Your task to perform on an android device: toggle translation in the chrome app Image 0: 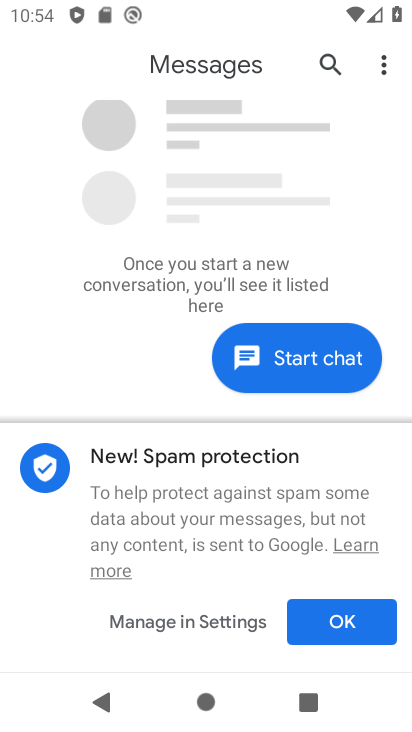
Step 0: press home button
Your task to perform on an android device: toggle translation in the chrome app Image 1: 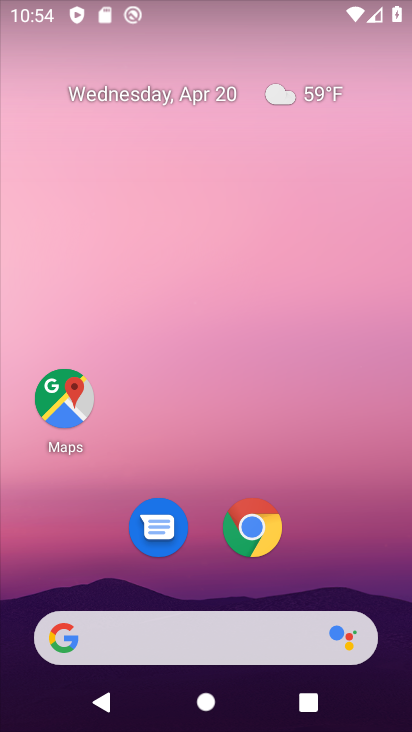
Step 1: drag from (374, 571) to (328, 174)
Your task to perform on an android device: toggle translation in the chrome app Image 2: 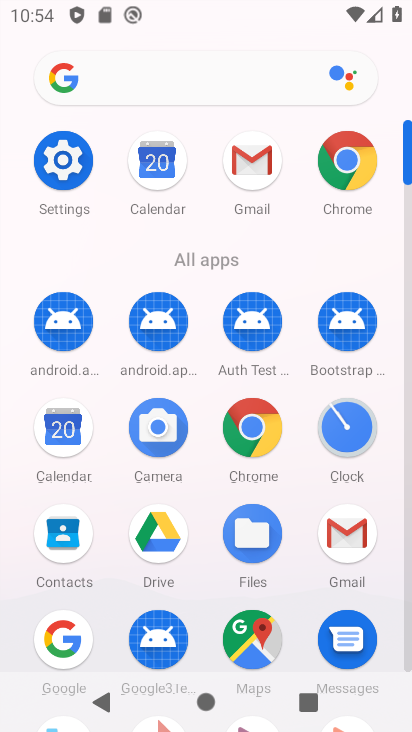
Step 2: click (256, 432)
Your task to perform on an android device: toggle translation in the chrome app Image 3: 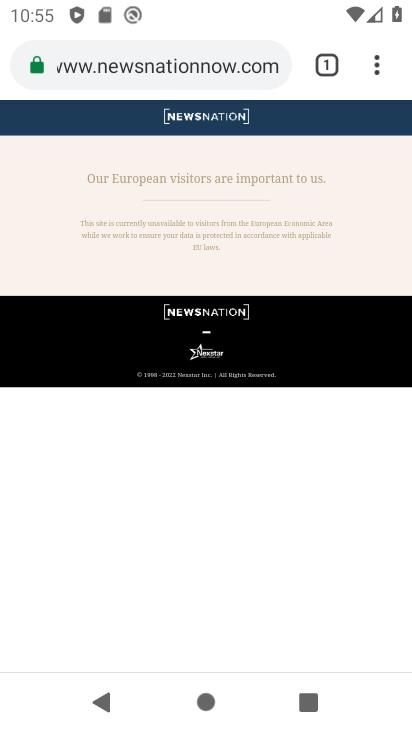
Step 3: drag from (377, 69) to (224, 561)
Your task to perform on an android device: toggle translation in the chrome app Image 4: 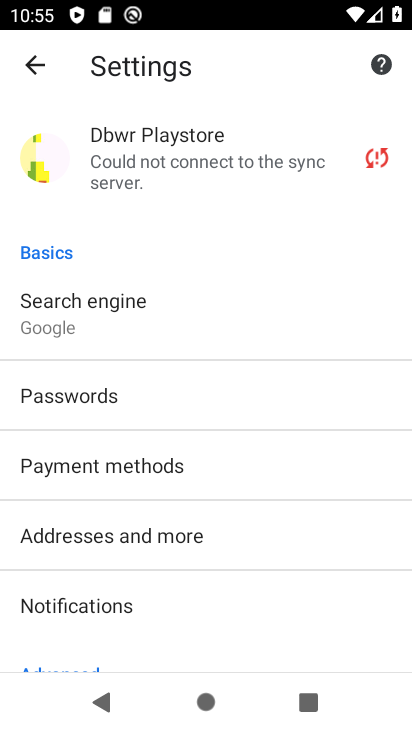
Step 4: drag from (259, 604) to (251, 321)
Your task to perform on an android device: toggle translation in the chrome app Image 5: 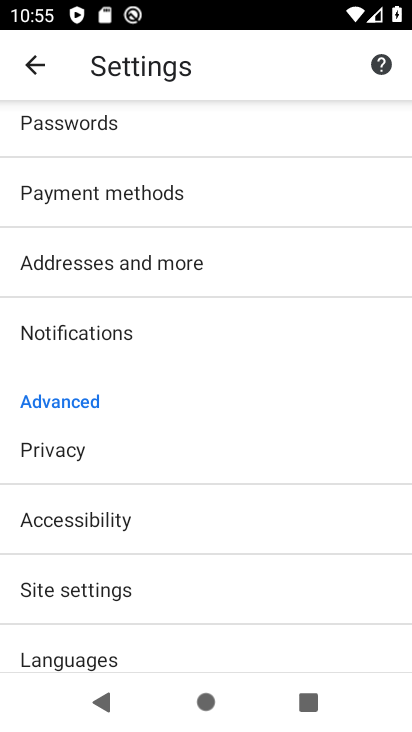
Step 5: drag from (242, 566) to (257, 317)
Your task to perform on an android device: toggle translation in the chrome app Image 6: 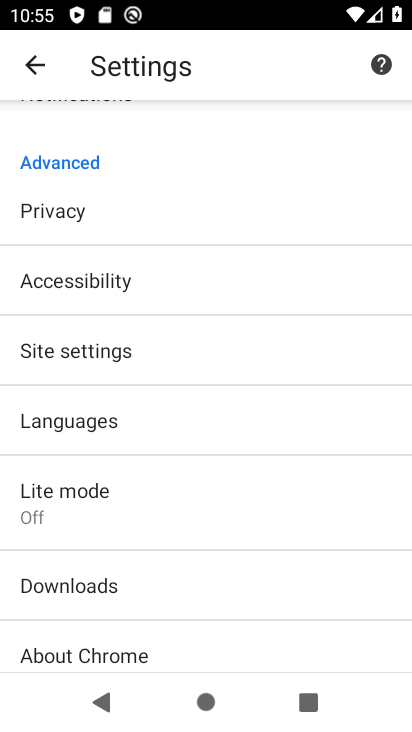
Step 6: click (137, 445)
Your task to perform on an android device: toggle translation in the chrome app Image 7: 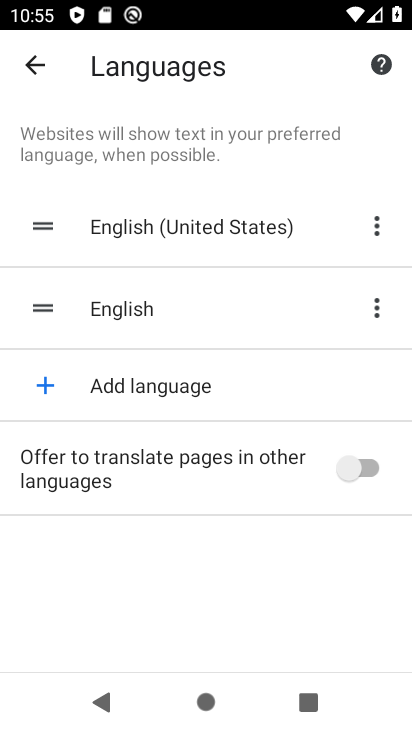
Step 7: click (371, 469)
Your task to perform on an android device: toggle translation in the chrome app Image 8: 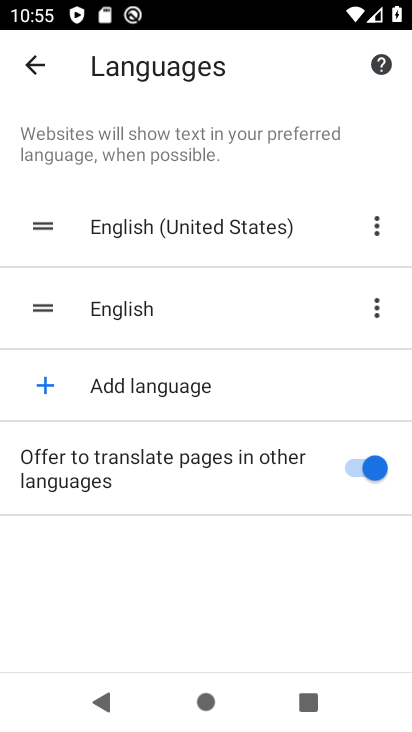
Step 8: task complete